Your task to perform on an android device: empty trash in the gmail app Image 0: 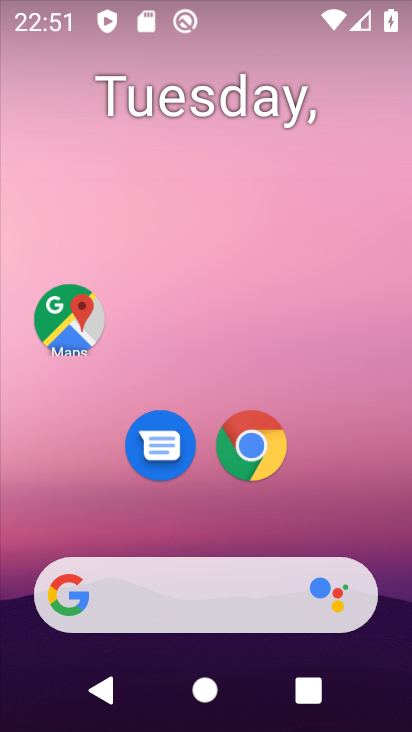
Step 0: drag from (223, 518) to (322, 46)
Your task to perform on an android device: empty trash in the gmail app Image 1: 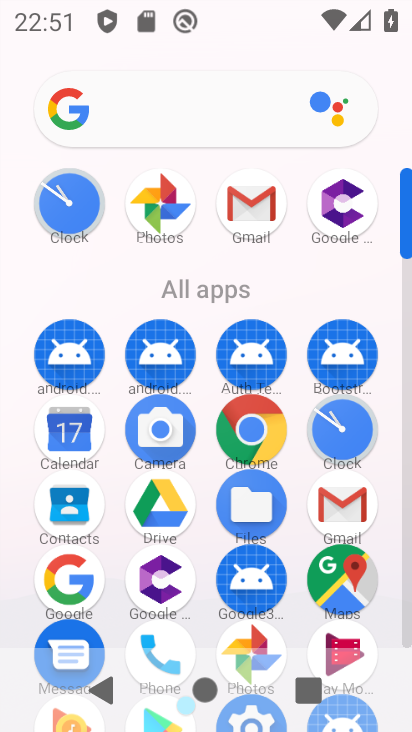
Step 1: click (353, 504)
Your task to perform on an android device: empty trash in the gmail app Image 2: 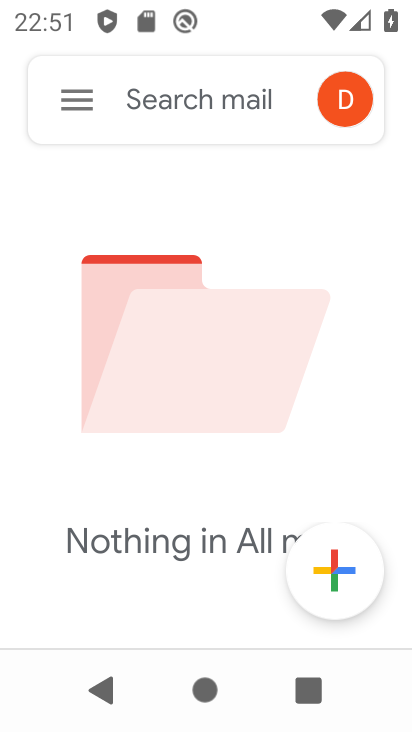
Step 2: click (85, 104)
Your task to perform on an android device: empty trash in the gmail app Image 3: 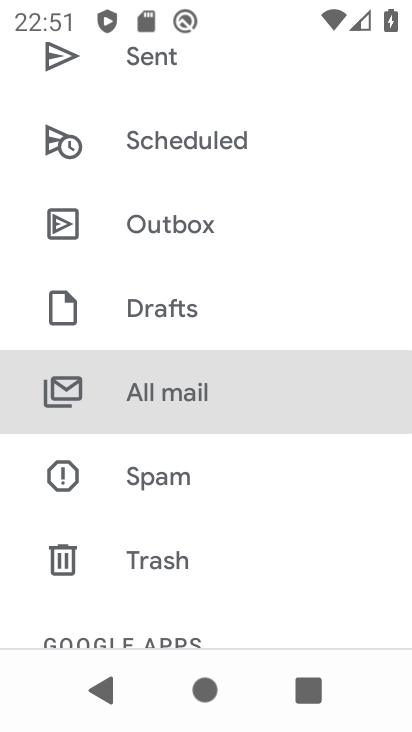
Step 3: click (123, 571)
Your task to perform on an android device: empty trash in the gmail app Image 4: 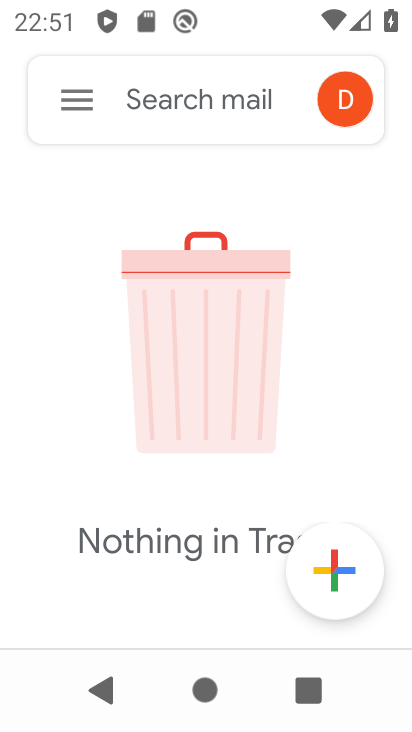
Step 4: task complete